Your task to perform on an android device: Search for pizza restaurants on Maps Image 0: 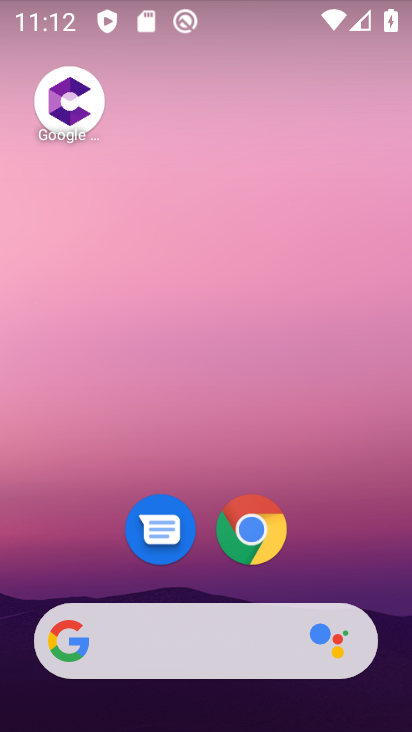
Step 0: drag from (213, 603) to (351, 134)
Your task to perform on an android device: Search for pizza restaurants on Maps Image 1: 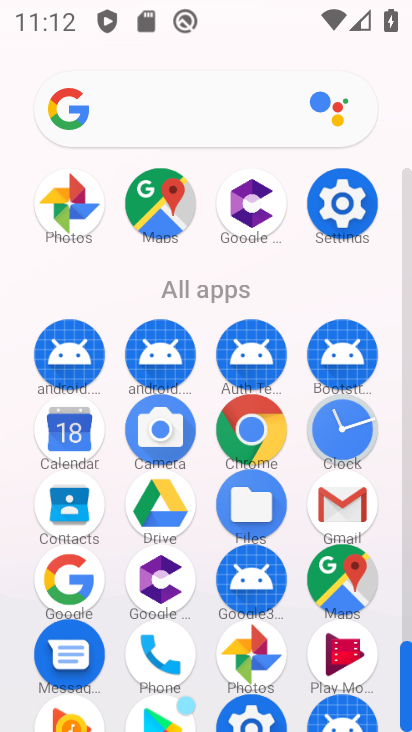
Step 1: click (332, 577)
Your task to perform on an android device: Search for pizza restaurants on Maps Image 2: 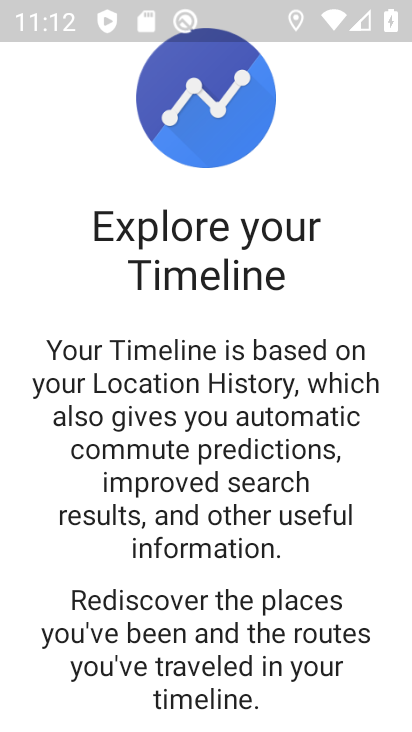
Step 2: drag from (167, 469) to (81, 21)
Your task to perform on an android device: Search for pizza restaurants on Maps Image 3: 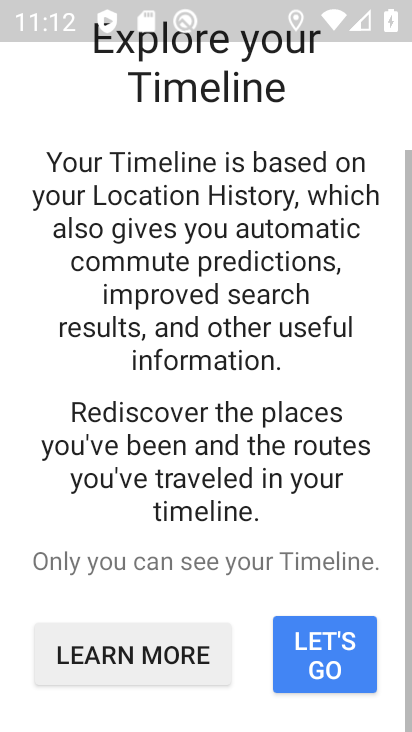
Step 3: click (319, 658)
Your task to perform on an android device: Search for pizza restaurants on Maps Image 4: 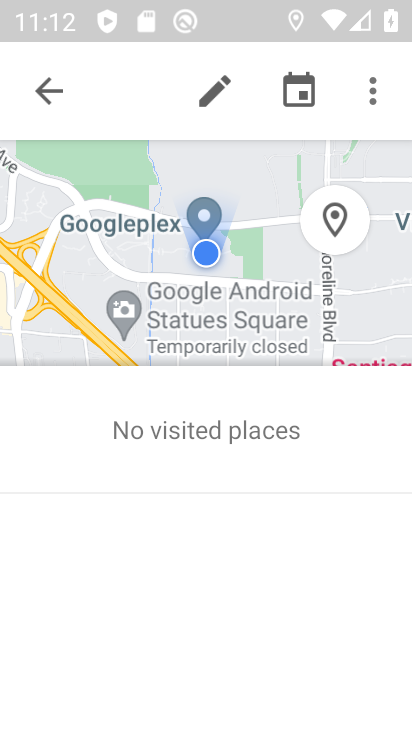
Step 4: click (42, 88)
Your task to perform on an android device: Search for pizza restaurants on Maps Image 5: 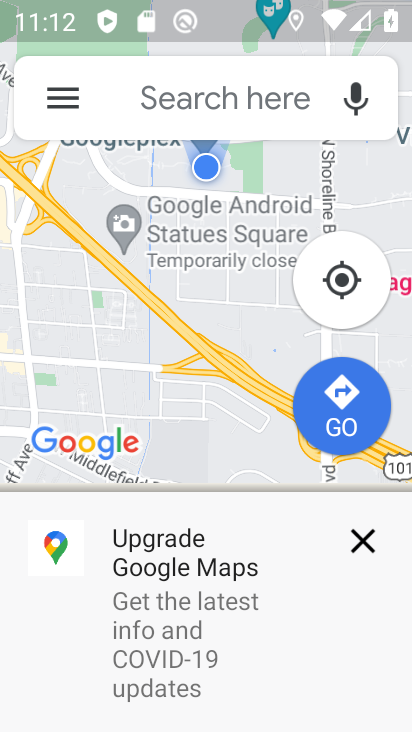
Step 5: click (183, 111)
Your task to perform on an android device: Search for pizza restaurants on Maps Image 6: 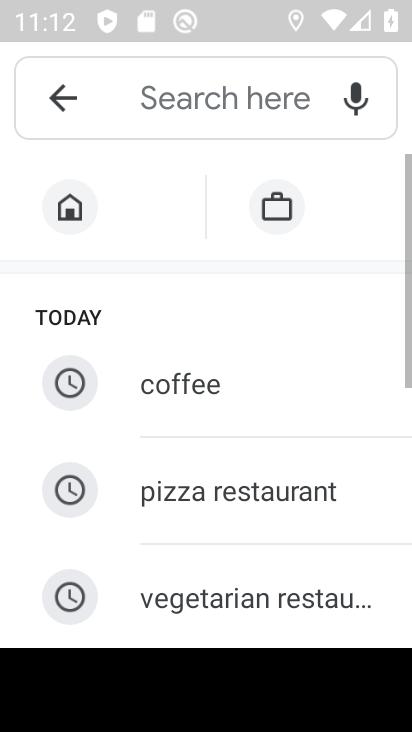
Step 6: click (246, 504)
Your task to perform on an android device: Search for pizza restaurants on Maps Image 7: 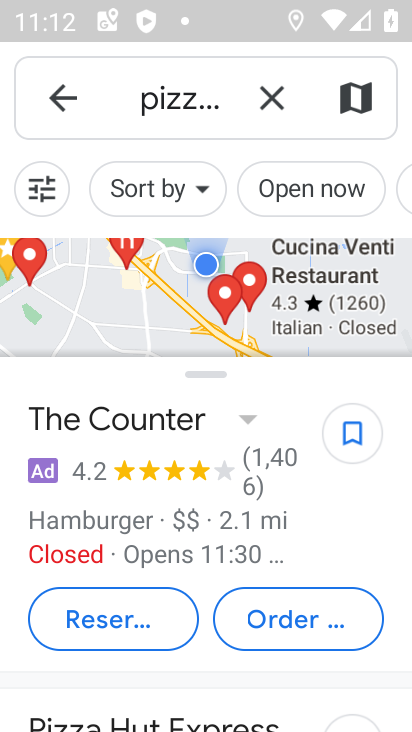
Step 7: task complete